Your task to perform on an android device: set the stopwatch Image 0: 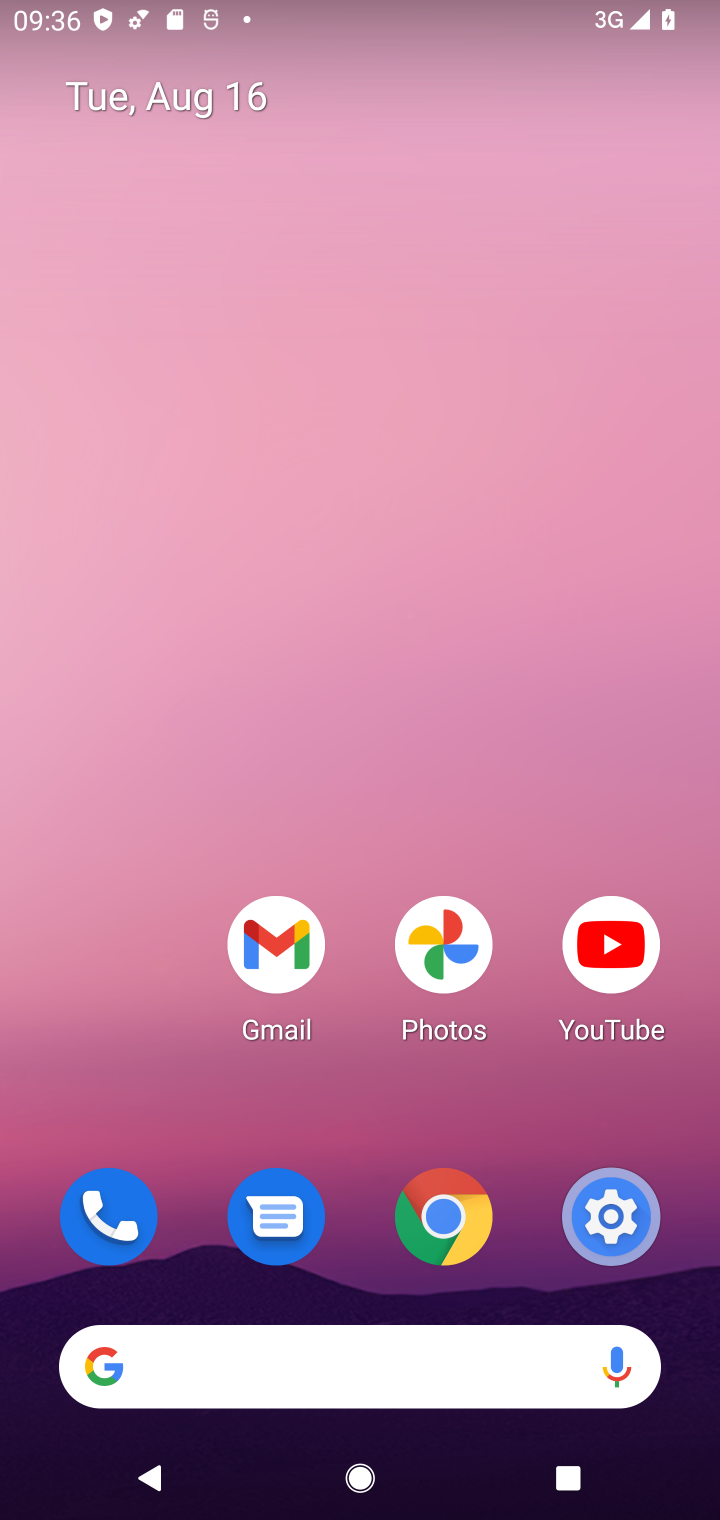
Step 0: drag from (368, 1230) to (432, 335)
Your task to perform on an android device: set the stopwatch Image 1: 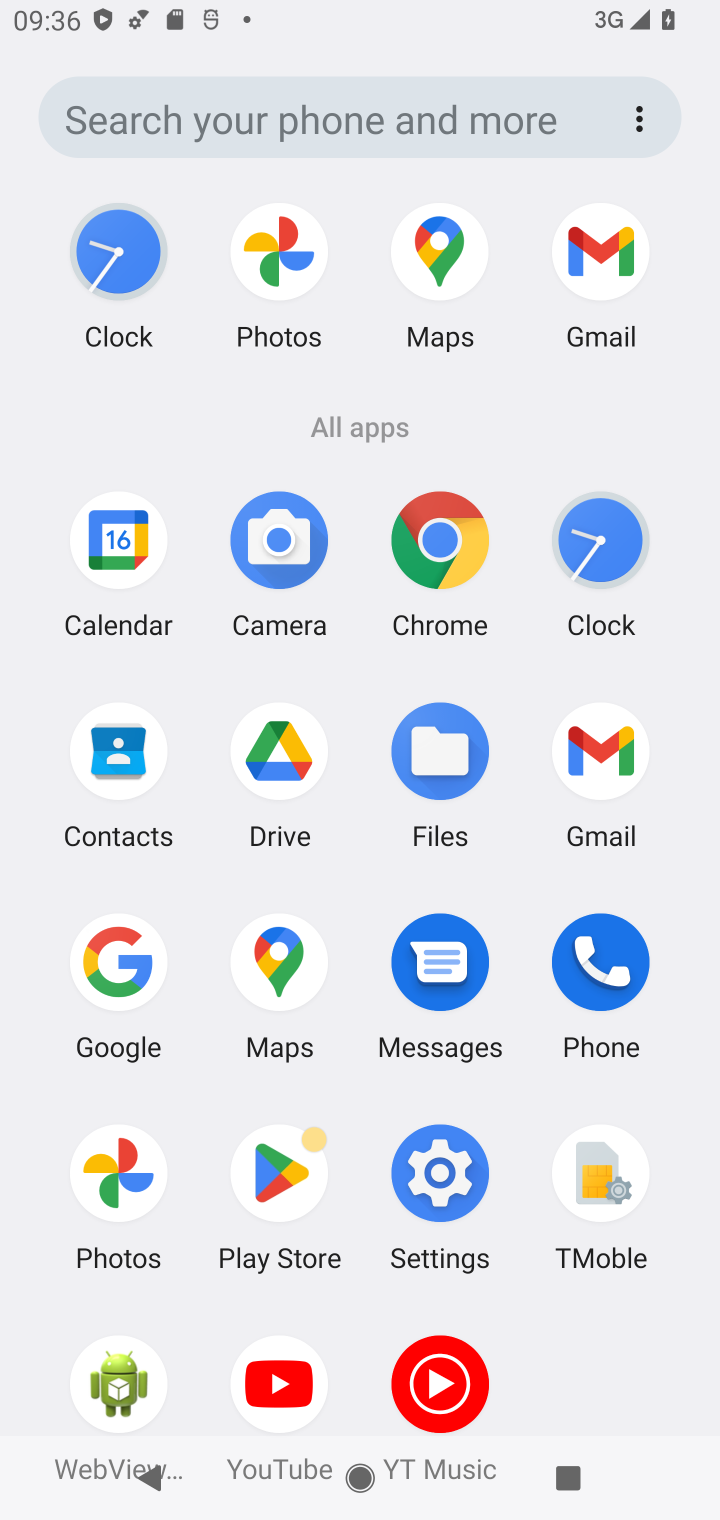
Step 1: click (591, 538)
Your task to perform on an android device: set the stopwatch Image 2: 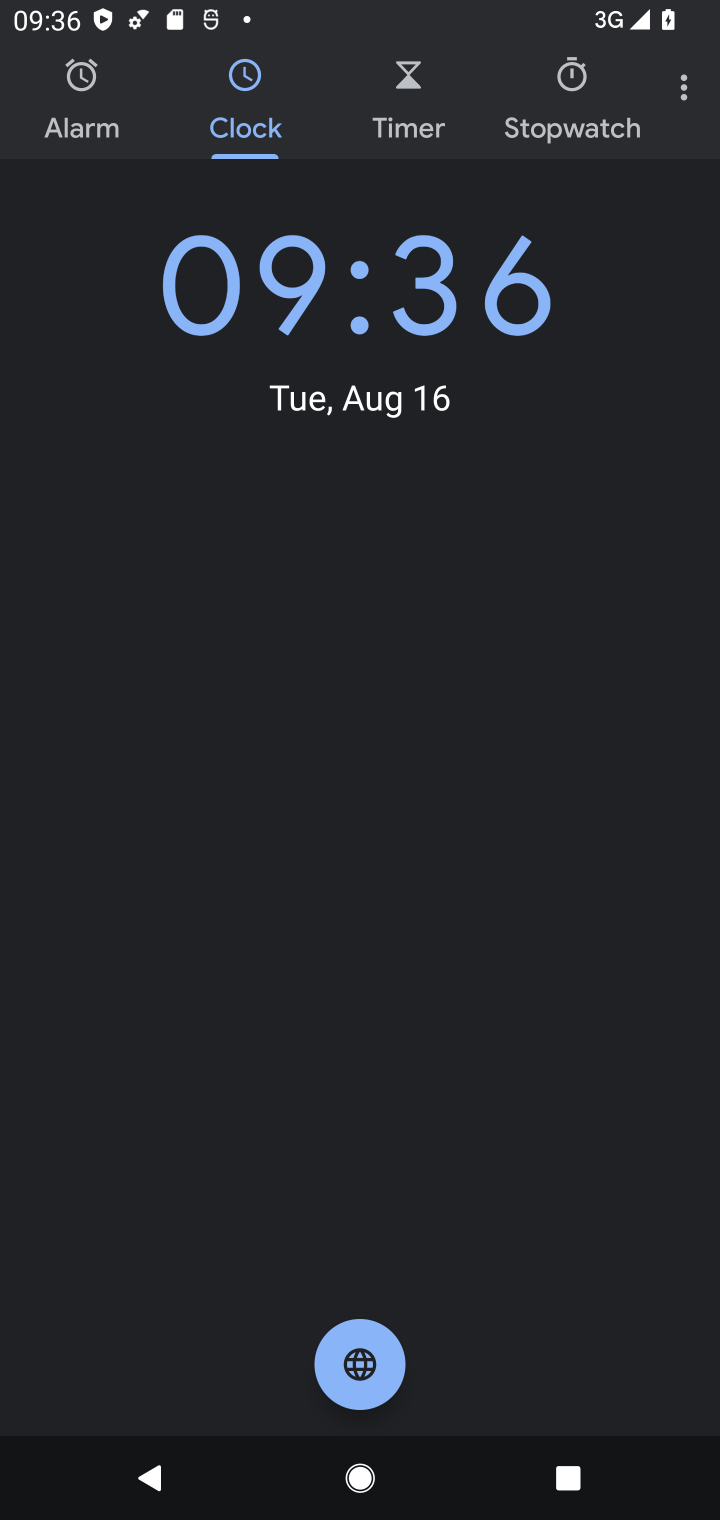
Step 2: click (567, 110)
Your task to perform on an android device: set the stopwatch Image 3: 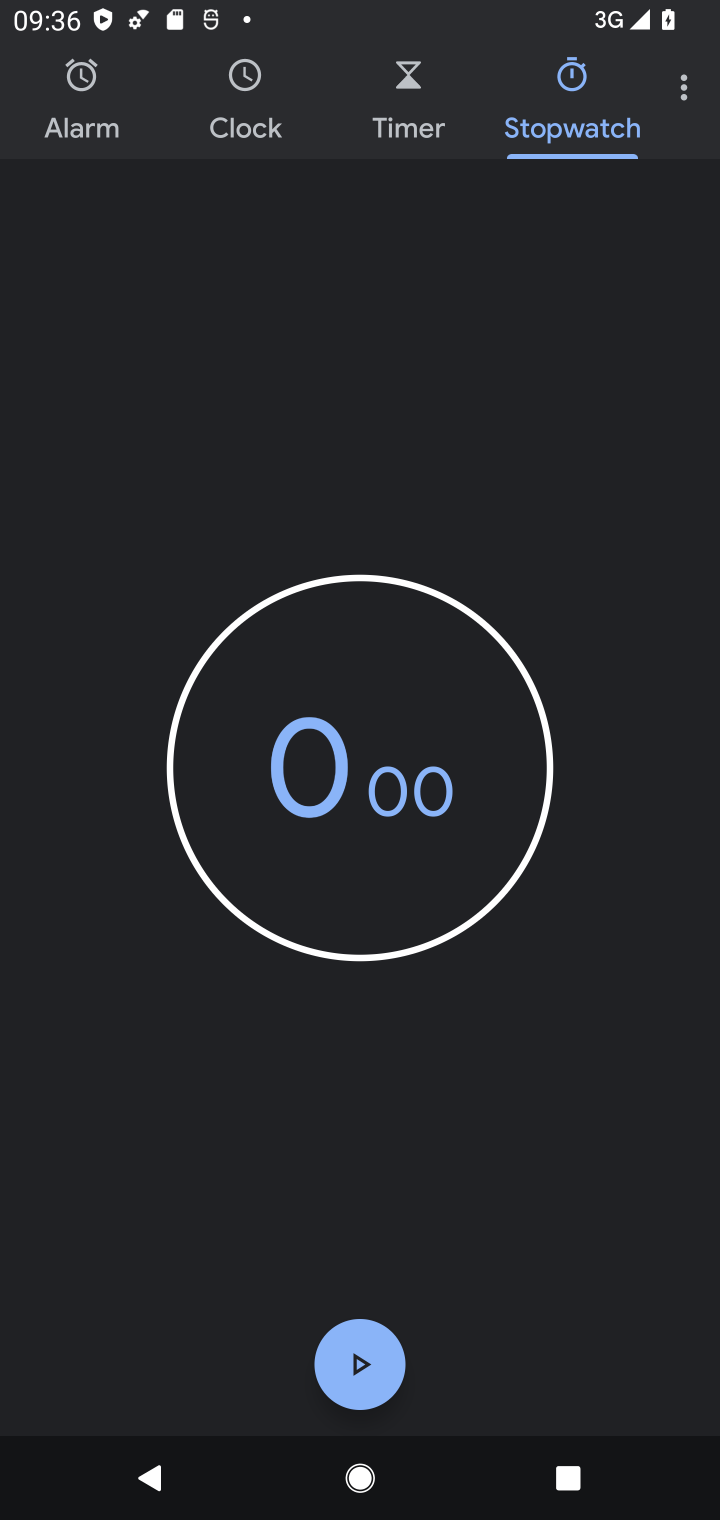
Step 3: click (405, 814)
Your task to perform on an android device: set the stopwatch Image 4: 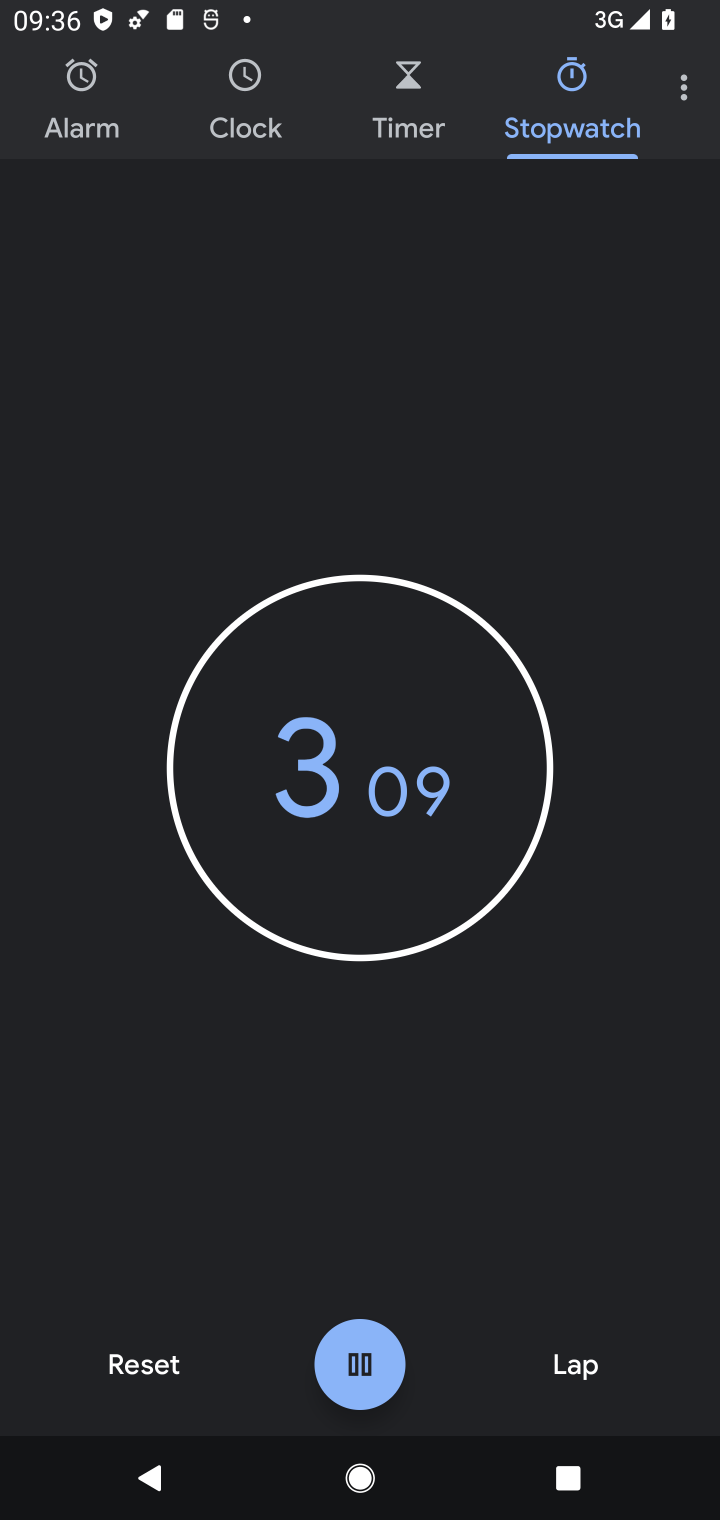
Step 4: type "8678787"
Your task to perform on an android device: set the stopwatch Image 5: 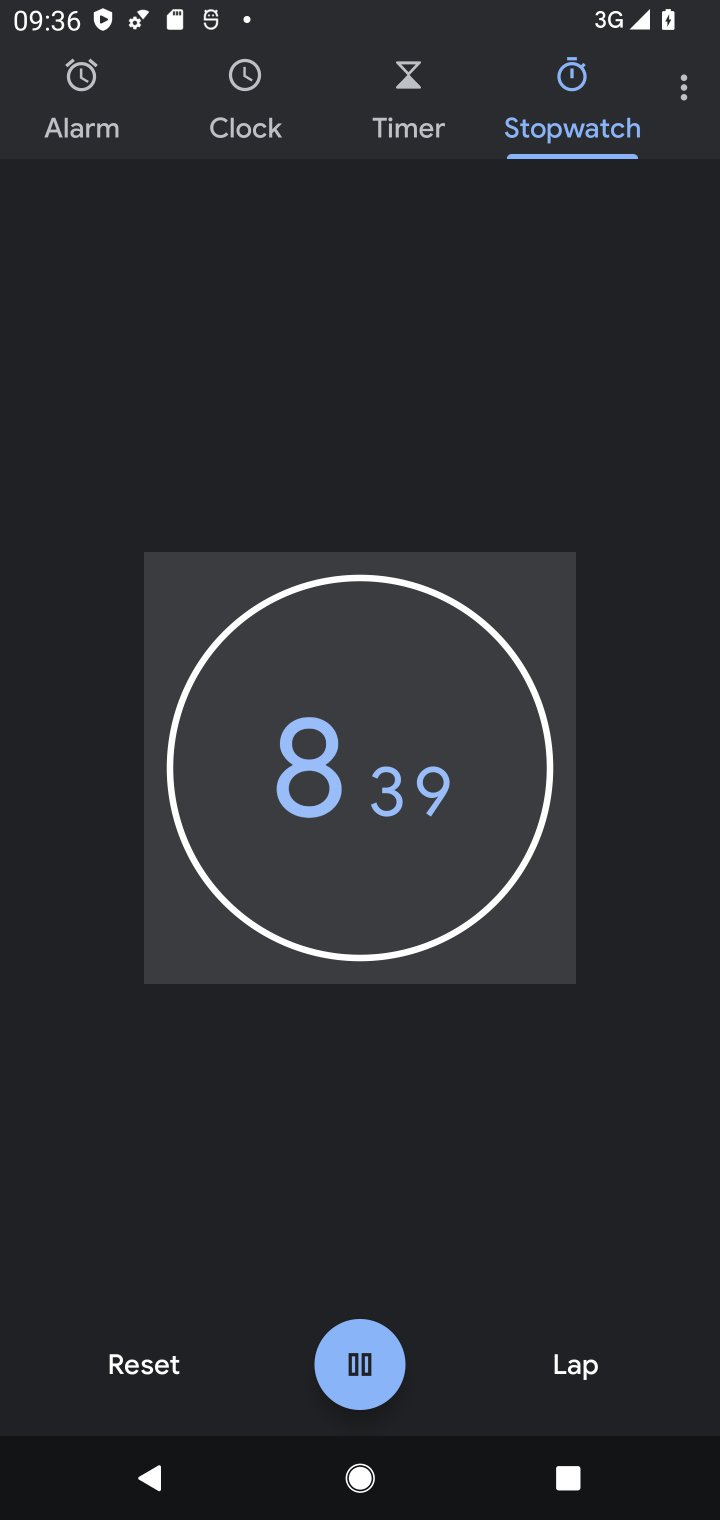
Step 5: task complete